Your task to perform on an android device: Open Google Chrome and open the bookmarks view Image 0: 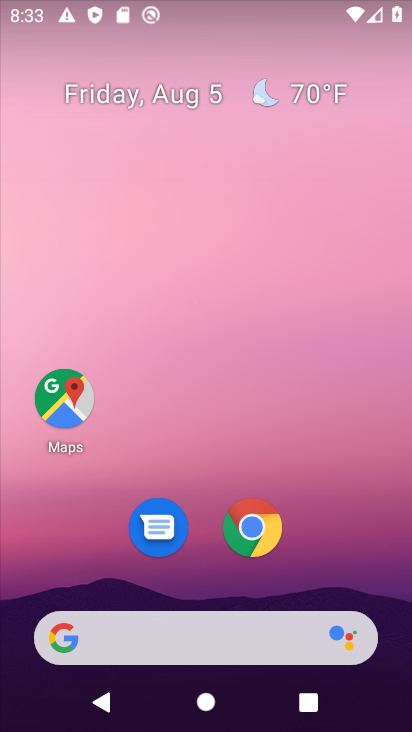
Step 0: click (261, 530)
Your task to perform on an android device: Open Google Chrome and open the bookmarks view Image 1: 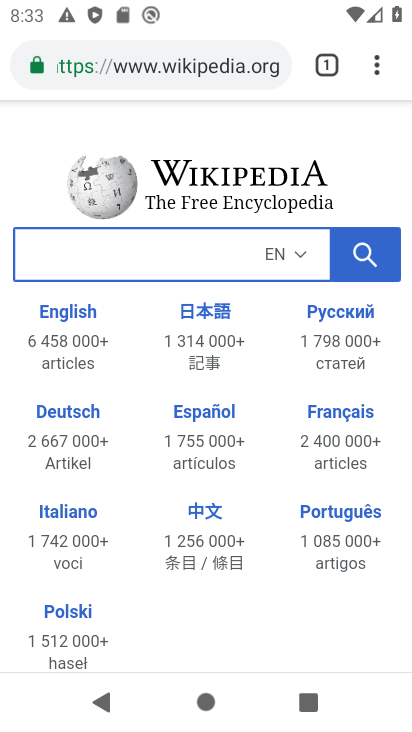
Step 1: click (378, 64)
Your task to perform on an android device: Open Google Chrome and open the bookmarks view Image 2: 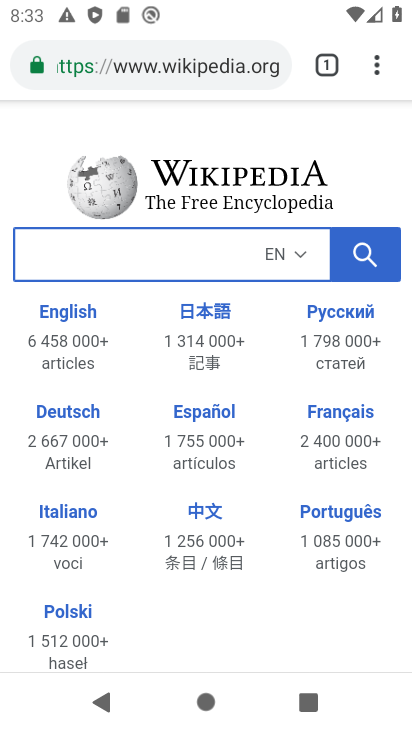
Step 2: task complete